Your task to perform on an android device: find which apps use the phone's location Image 0: 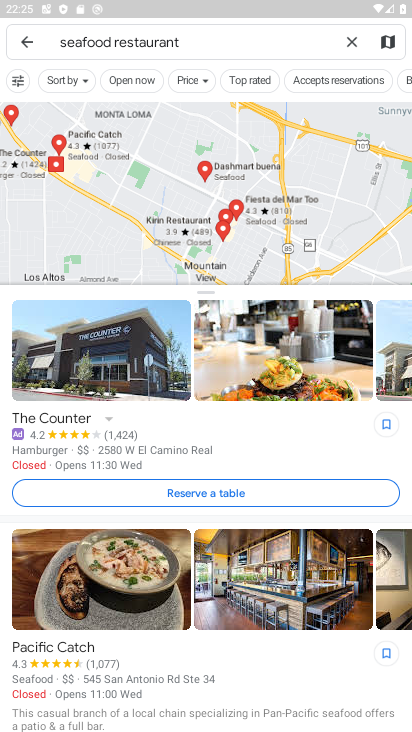
Step 0: press home button
Your task to perform on an android device: find which apps use the phone's location Image 1: 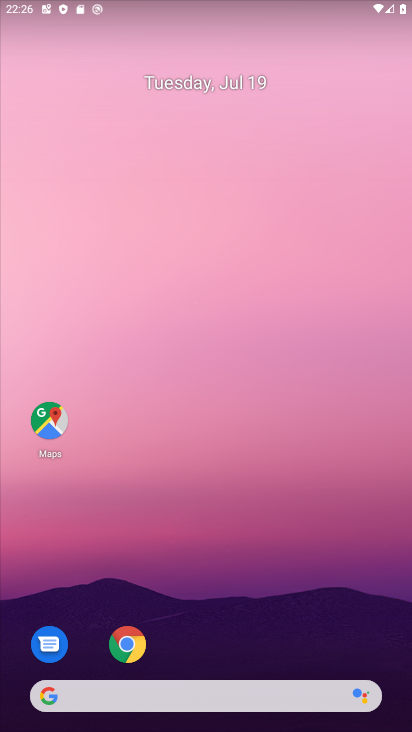
Step 1: drag from (238, 642) to (219, 182)
Your task to perform on an android device: find which apps use the phone's location Image 2: 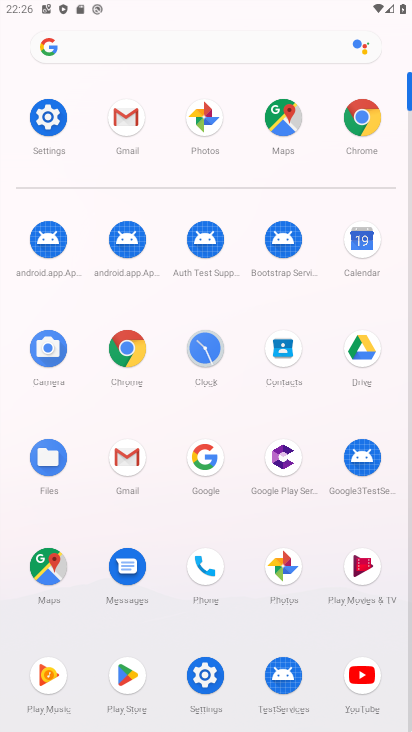
Step 2: click (46, 126)
Your task to perform on an android device: find which apps use the phone's location Image 3: 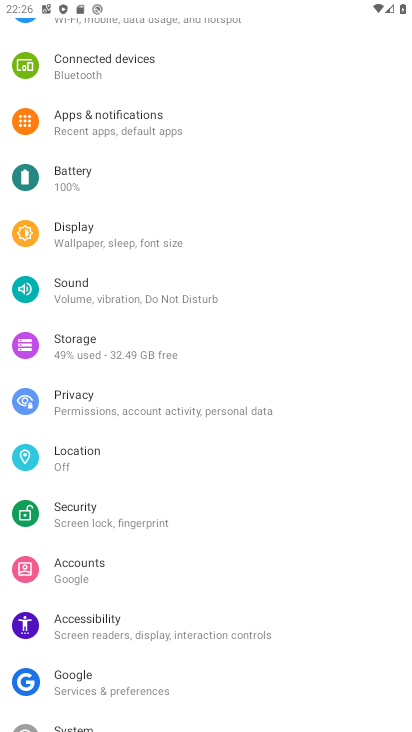
Step 3: click (74, 455)
Your task to perform on an android device: find which apps use the phone's location Image 4: 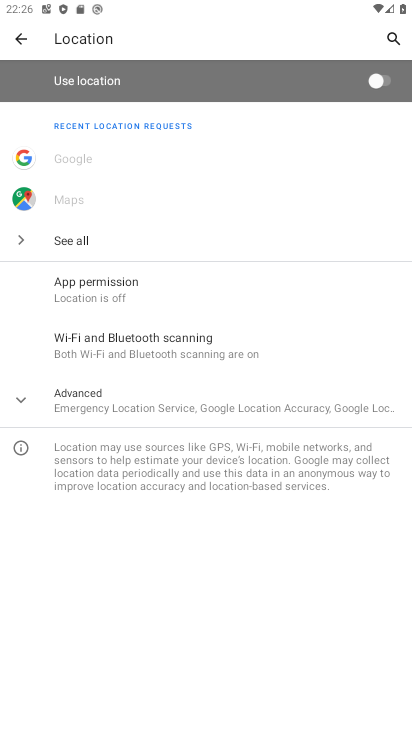
Step 4: click (92, 281)
Your task to perform on an android device: find which apps use the phone's location Image 5: 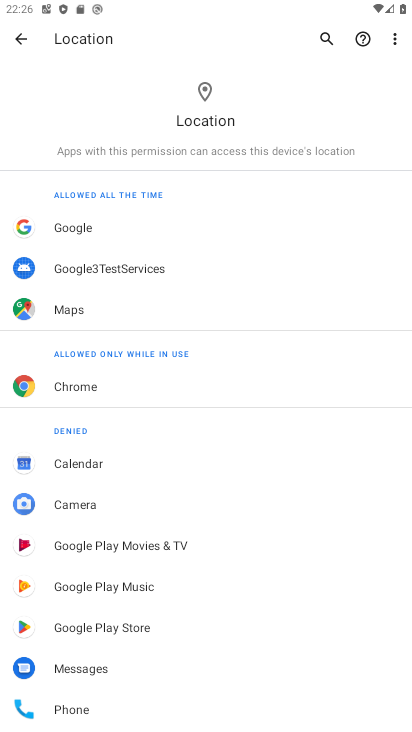
Step 5: task complete